Your task to perform on an android device: Search for Mexican restaurants on Maps Image 0: 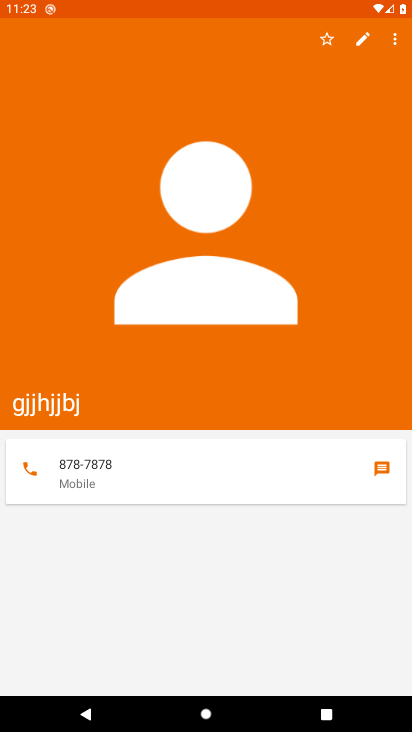
Step 0: press home button
Your task to perform on an android device: Search for Mexican restaurants on Maps Image 1: 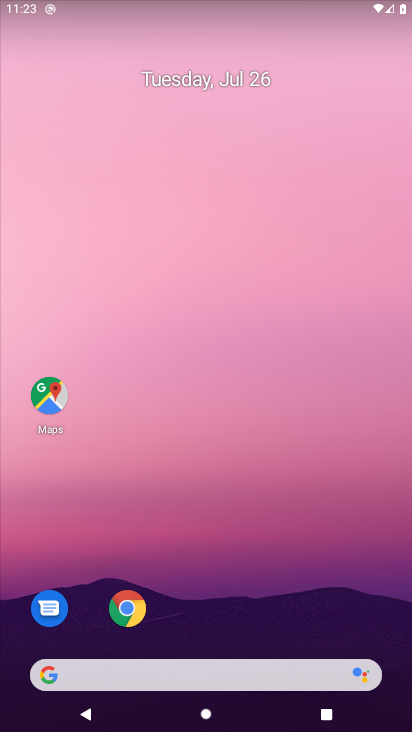
Step 1: click (55, 382)
Your task to perform on an android device: Search for Mexican restaurants on Maps Image 2: 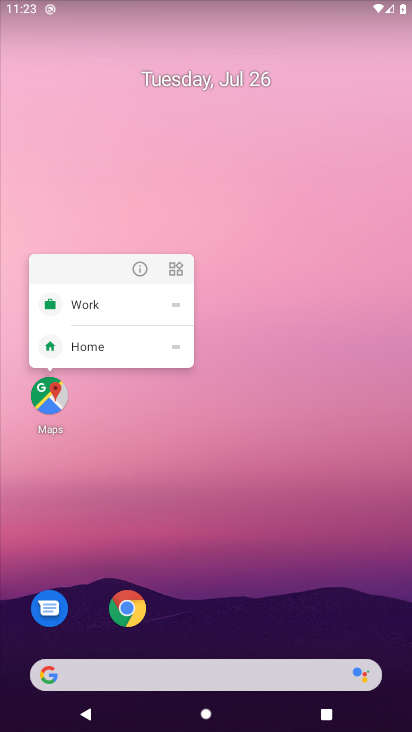
Step 2: click (52, 393)
Your task to perform on an android device: Search for Mexican restaurants on Maps Image 3: 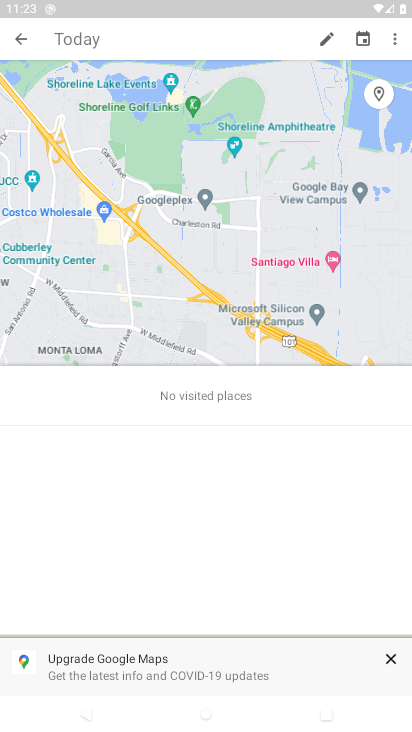
Step 3: click (11, 33)
Your task to perform on an android device: Search for Mexican restaurants on Maps Image 4: 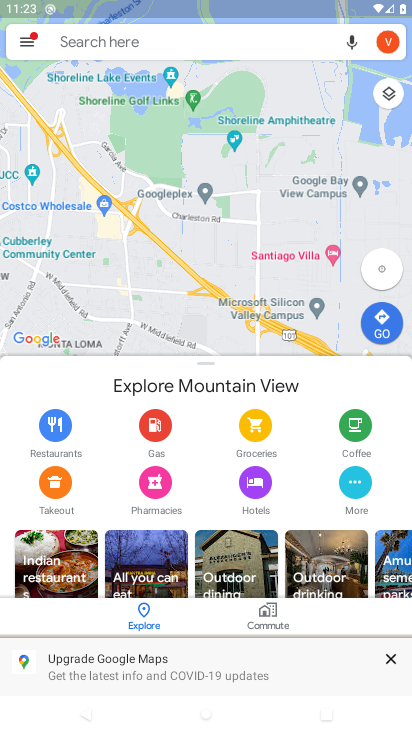
Step 4: type "Mexican restaurants"
Your task to perform on an android device: Search for Mexican restaurants on Maps Image 5: 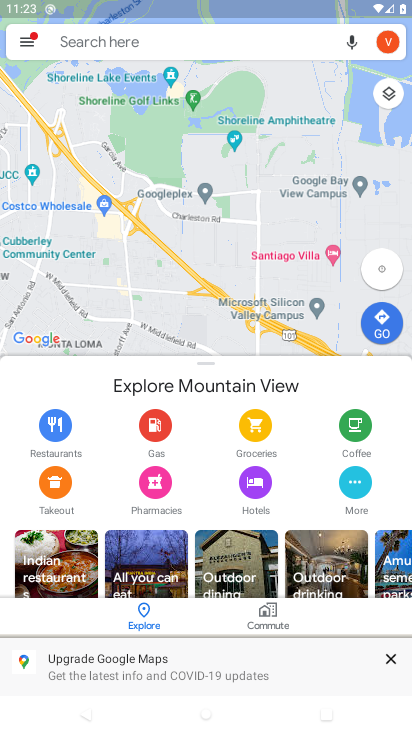
Step 5: click (57, 41)
Your task to perform on an android device: Search for Mexican restaurants on Maps Image 6: 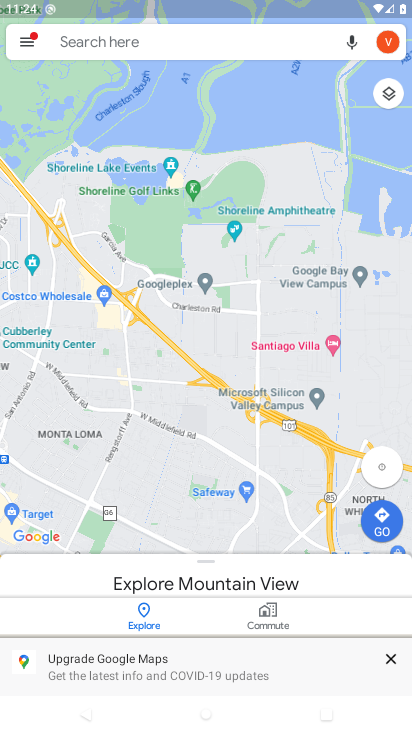
Step 6: click (65, 40)
Your task to perform on an android device: Search for Mexican restaurants on Maps Image 7: 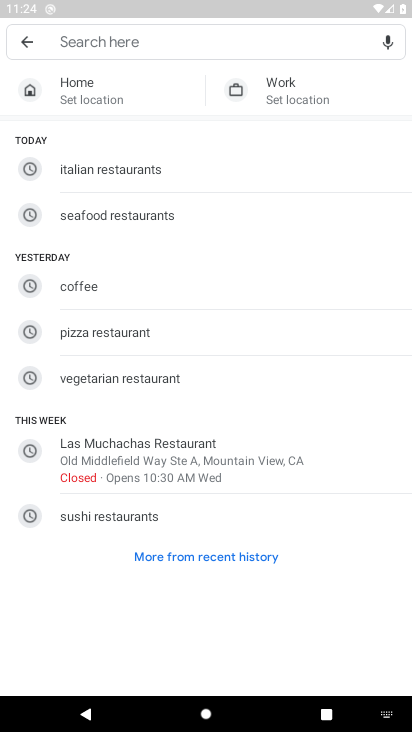
Step 7: type "Mexican restaurants"
Your task to perform on an android device: Search for Mexican restaurants on Maps Image 8: 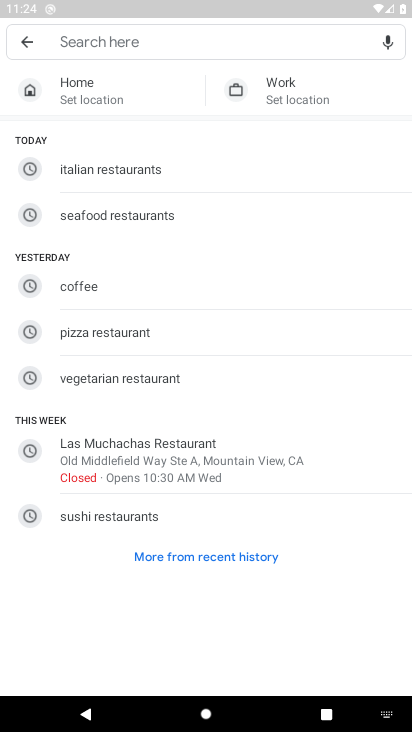
Step 8: click (128, 42)
Your task to perform on an android device: Search for Mexican restaurants on Maps Image 9: 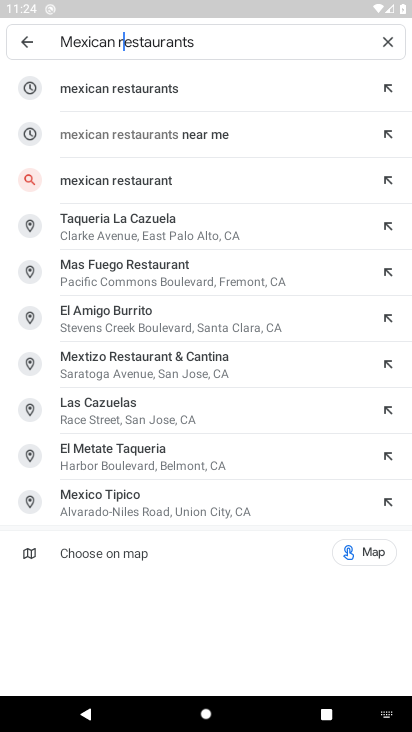
Step 9: press enter
Your task to perform on an android device: Search for Mexican restaurants on Maps Image 10: 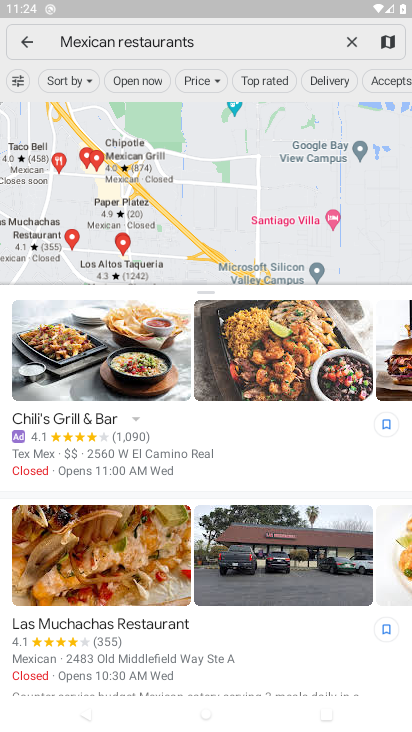
Step 10: task complete